Your task to perform on an android device: Look up the best rated 3d printer on Ali Express Image 0: 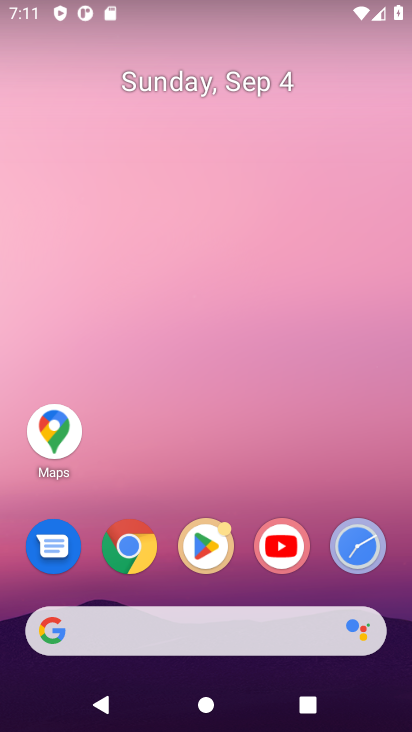
Step 0: click (132, 552)
Your task to perform on an android device: Look up the best rated 3d printer on Ali Express Image 1: 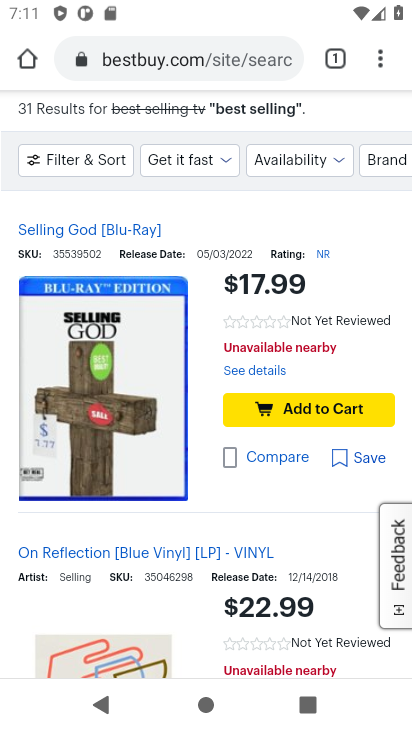
Step 1: click (225, 58)
Your task to perform on an android device: Look up the best rated 3d printer on Ali Express Image 2: 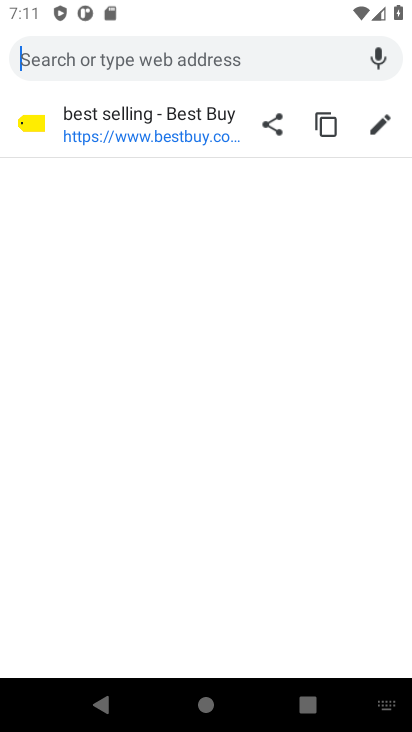
Step 2: type "Ali Express"
Your task to perform on an android device: Look up the best rated 3d printer on Ali Express Image 3: 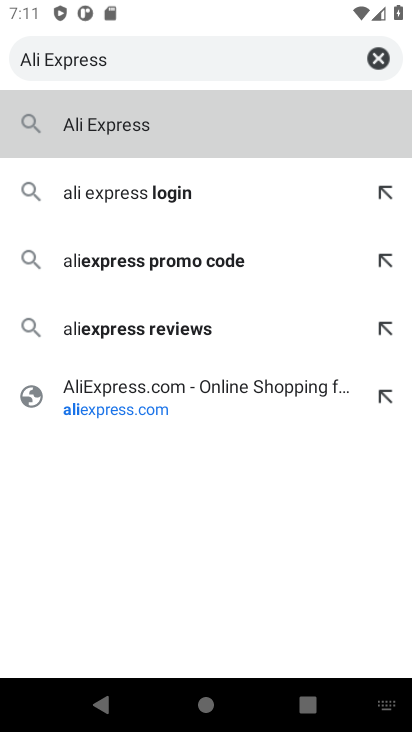
Step 3: click (93, 129)
Your task to perform on an android device: Look up the best rated 3d printer on Ali Express Image 4: 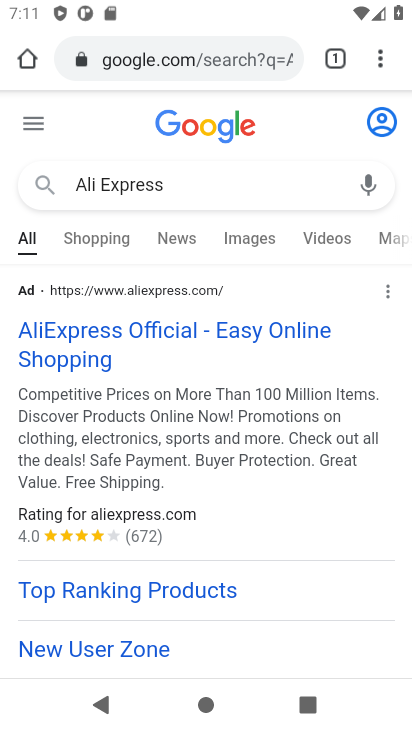
Step 4: click (73, 342)
Your task to perform on an android device: Look up the best rated 3d printer on Ali Express Image 5: 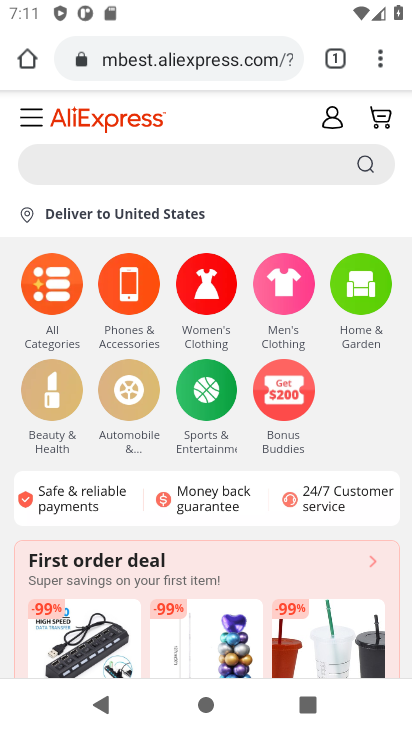
Step 5: click (155, 170)
Your task to perform on an android device: Look up the best rated 3d printer on Ali Express Image 6: 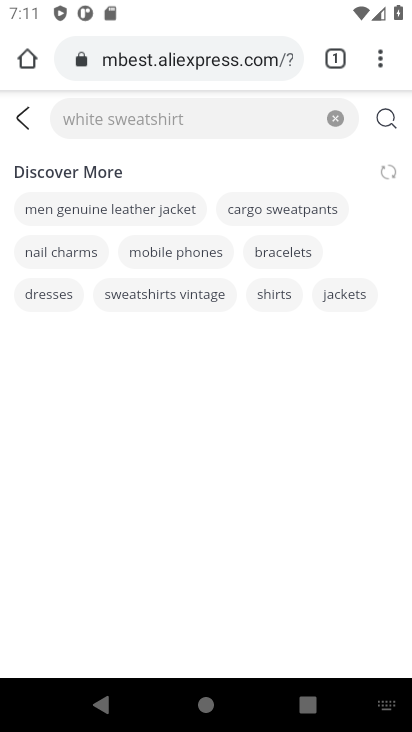
Step 6: type "best rated 3d printer "
Your task to perform on an android device: Look up the best rated 3d printer on Ali Express Image 7: 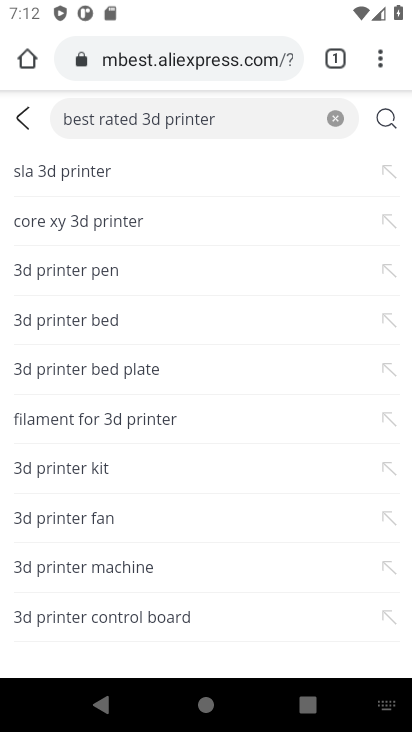
Step 7: click (385, 120)
Your task to perform on an android device: Look up the best rated 3d printer on Ali Express Image 8: 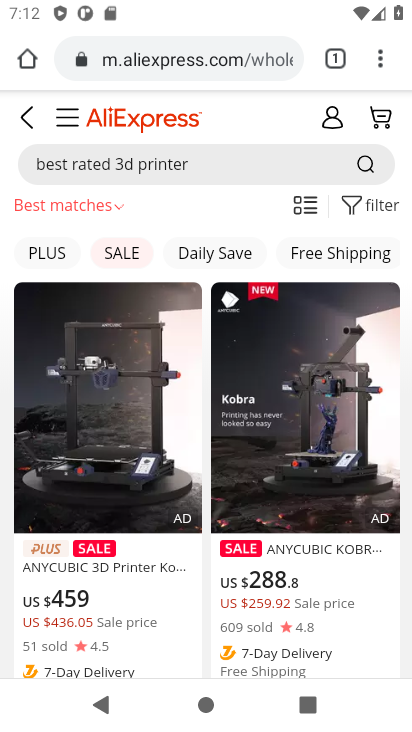
Step 8: drag from (199, 633) to (197, 398)
Your task to perform on an android device: Look up the best rated 3d printer on Ali Express Image 9: 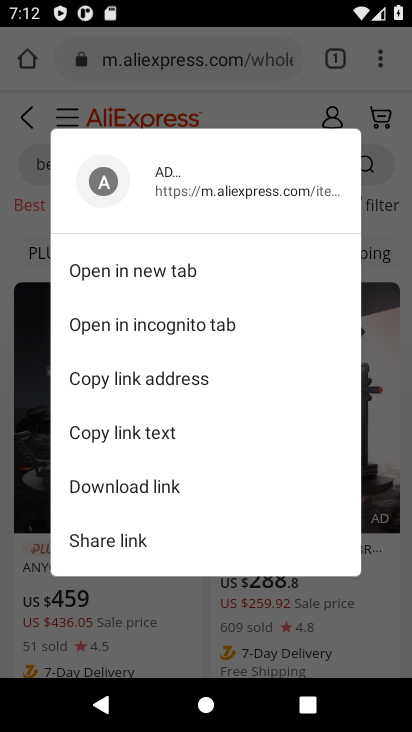
Step 9: click (377, 414)
Your task to perform on an android device: Look up the best rated 3d printer on Ali Express Image 10: 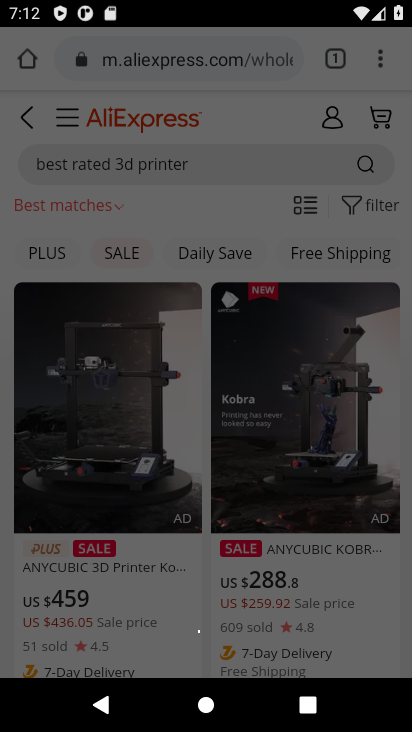
Step 10: task complete